Your task to perform on an android device: Show me popular videos on Youtube Image 0: 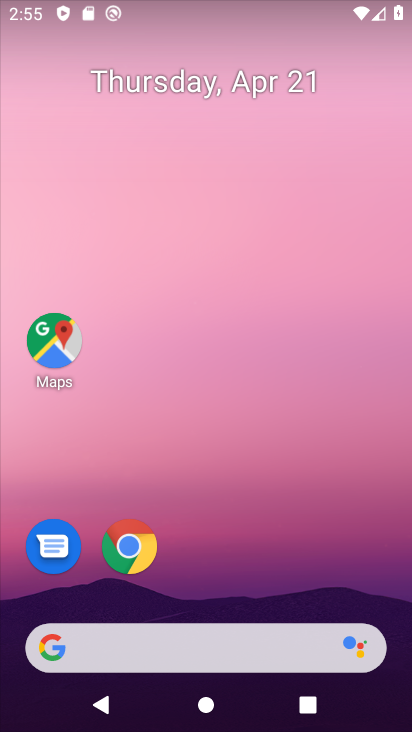
Step 0: drag from (229, 640) to (276, 154)
Your task to perform on an android device: Show me popular videos on Youtube Image 1: 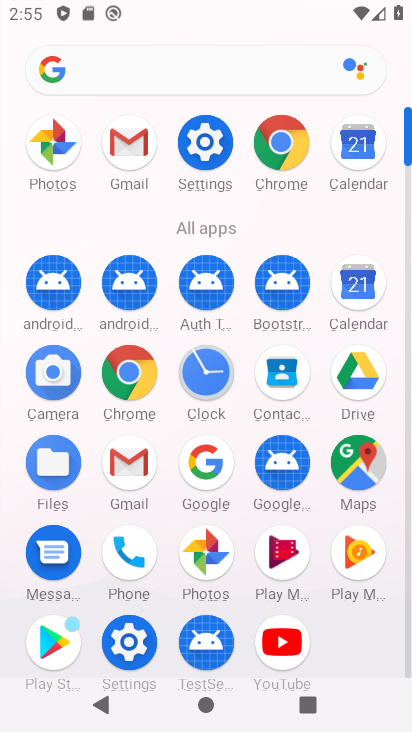
Step 1: click (285, 660)
Your task to perform on an android device: Show me popular videos on Youtube Image 2: 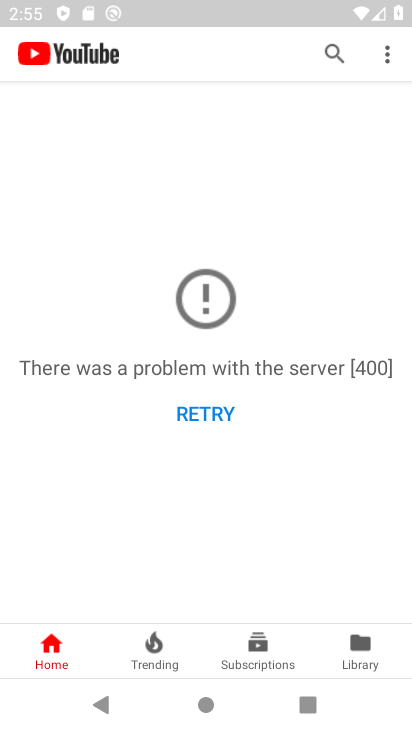
Step 2: task complete